Your task to perform on an android device: Go to privacy settings Image 0: 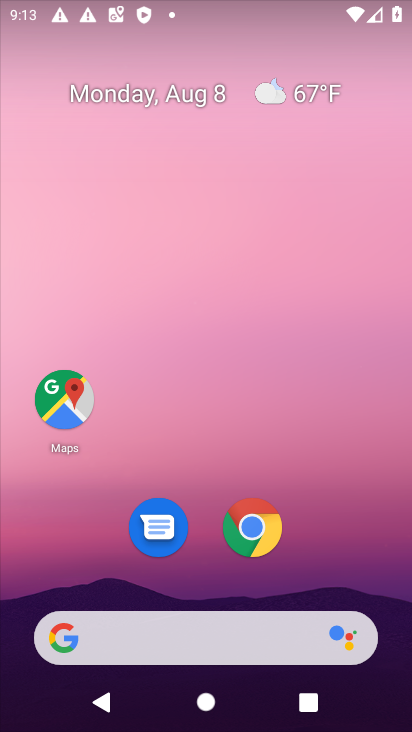
Step 0: click (261, 530)
Your task to perform on an android device: Go to privacy settings Image 1: 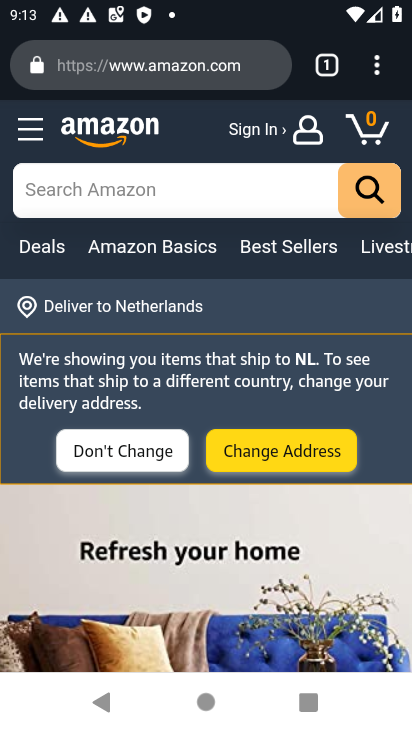
Step 1: press home button
Your task to perform on an android device: Go to privacy settings Image 2: 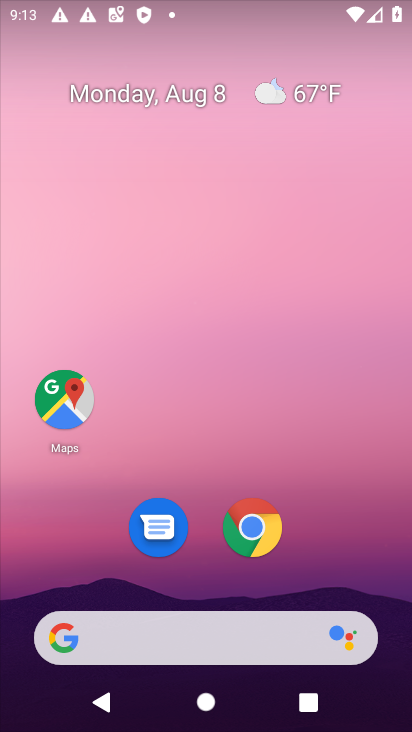
Step 2: drag from (371, 652) to (291, 74)
Your task to perform on an android device: Go to privacy settings Image 3: 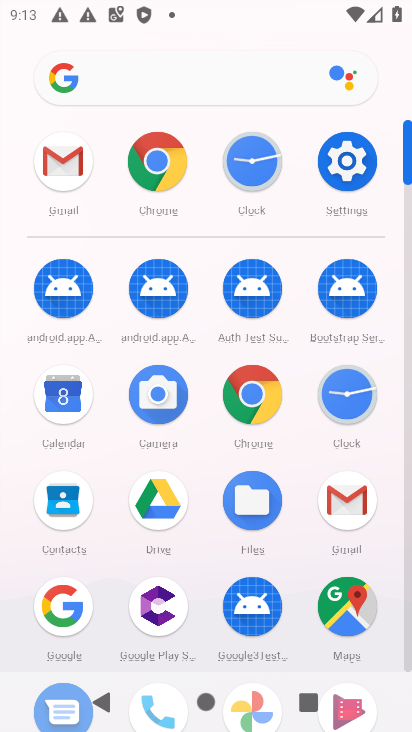
Step 3: click (309, 162)
Your task to perform on an android device: Go to privacy settings Image 4: 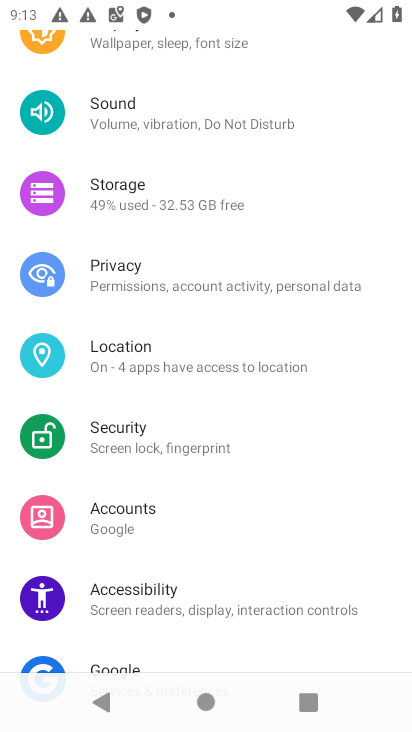
Step 4: click (120, 271)
Your task to perform on an android device: Go to privacy settings Image 5: 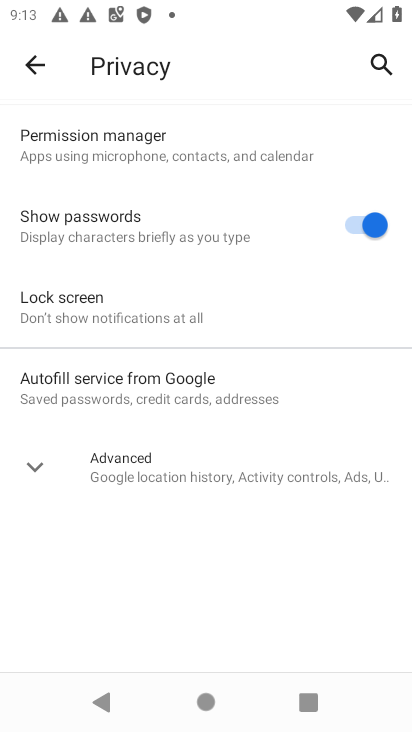
Step 5: click (30, 469)
Your task to perform on an android device: Go to privacy settings Image 6: 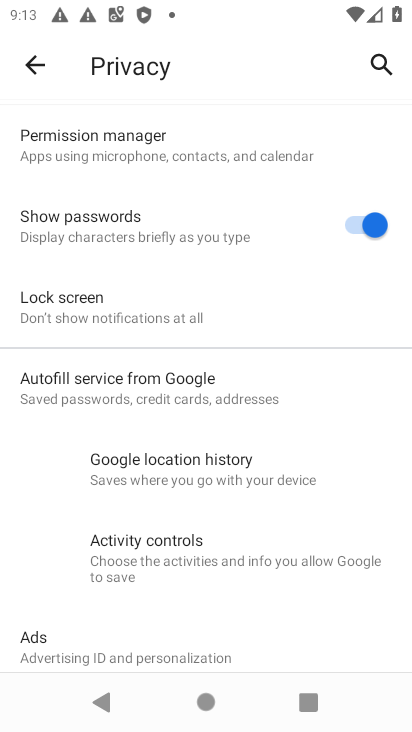
Step 6: task complete